Your task to perform on an android device: empty trash in google photos Image 0: 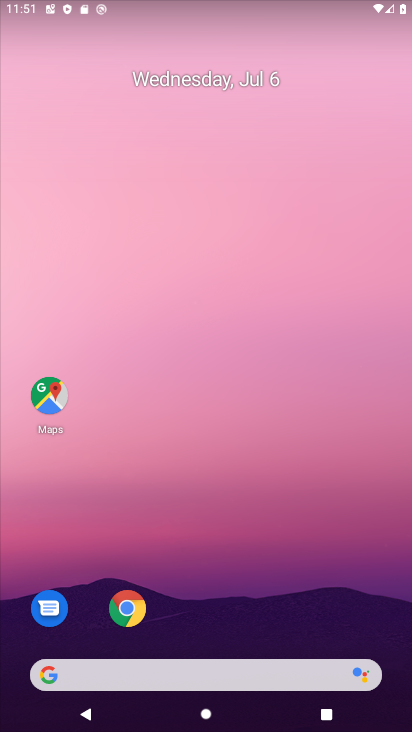
Step 0: drag from (160, 647) to (162, 188)
Your task to perform on an android device: empty trash in google photos Image 1: 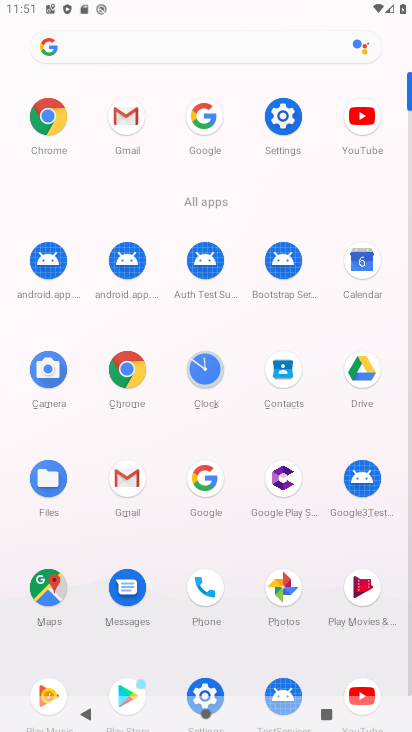
Step 1: click (277, 590)
Your task to perform on an android device: empty trash in google photos Image 2: 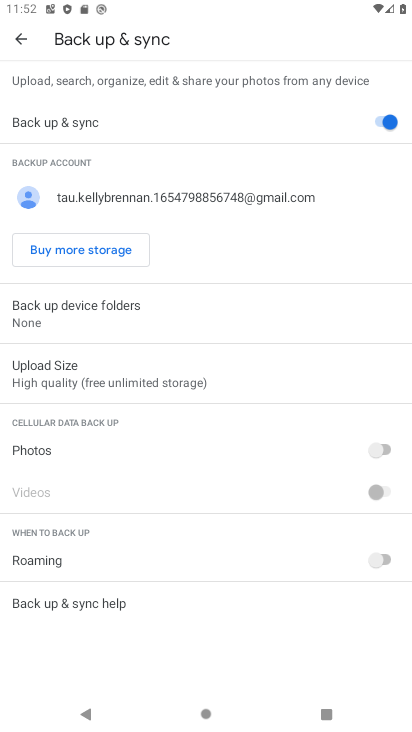
Step 2: click (20, 36)
Your task to perform on an android device: empty trash in google photos Image 3: 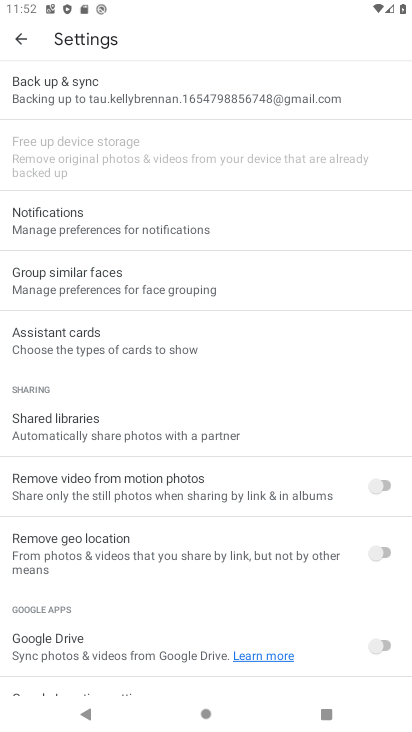
Step 3: click (29, 49)
Your task to perform on an android device: empty trash in google photos Image 4: 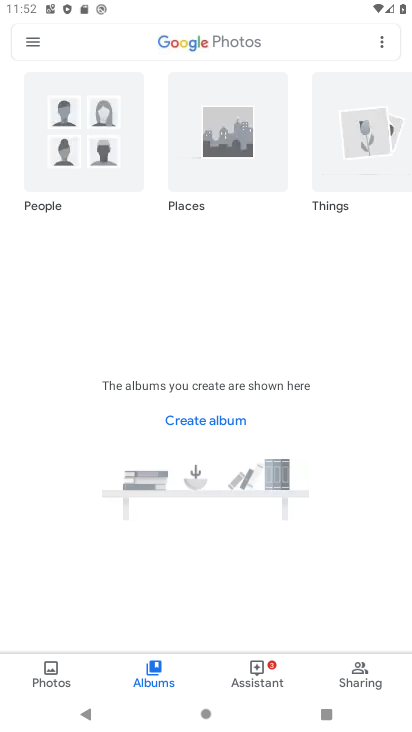
Step 4: click (32, 39)
Your task to perform on an android device: empty trash in google photos Image 5: 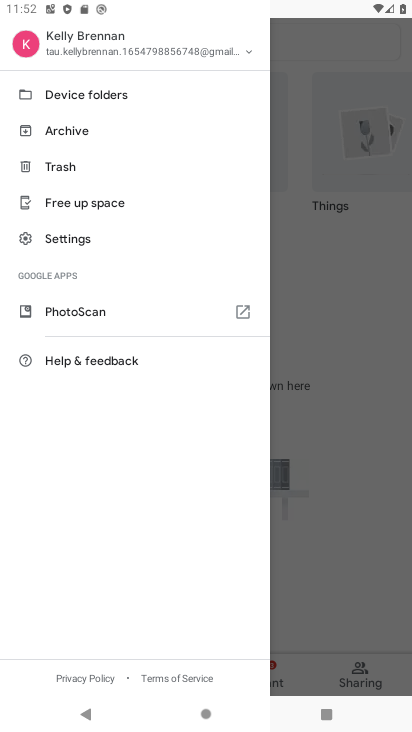
Step 5: click (67, 169)
Your task to perform on an android device: empty trash in google photos Image 6: 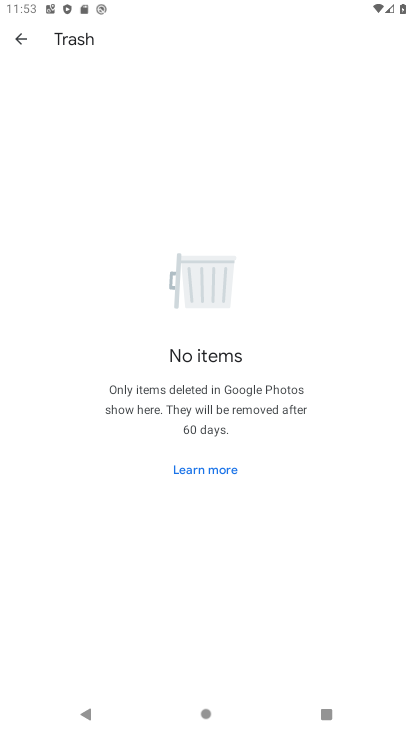
Step 6: task complete